Your task to perform on an android device: Go to eBay Image 0: 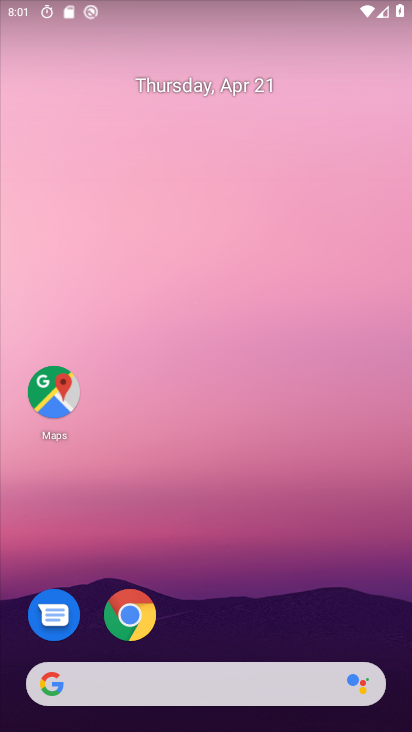
Step 0: press home button
Your task to perform on an android device: Go to eBay Image 1: 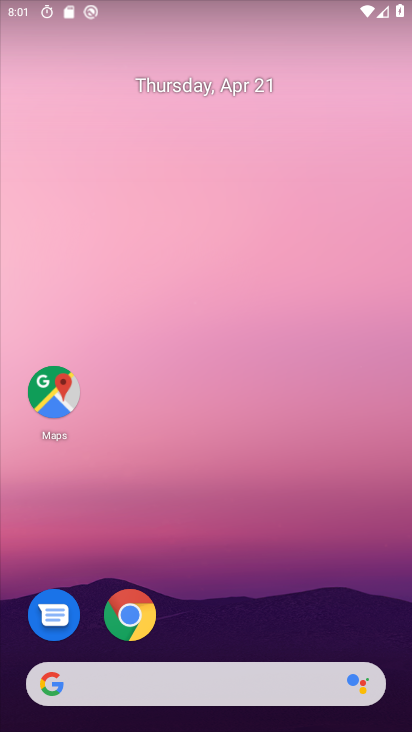
Step 1: drag from (213, 683) to (273, 102)
Your task to perform on an android device: Go to eBay Image 2: 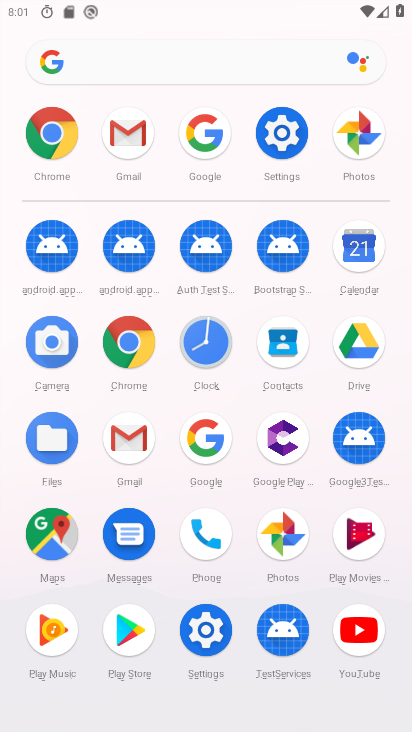
Step 2: click (43, 145)
Your task to perform on an android device: Go to eBay Image 3: 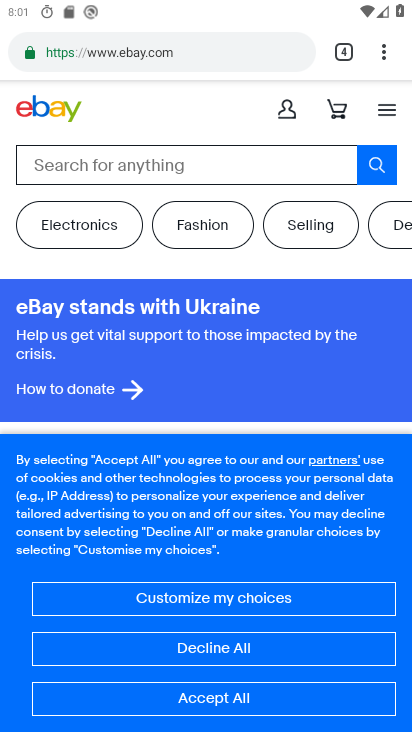
Step 3: task complete